Your task to perform on an android device: make emails show in primary in the gmail app Image 0: 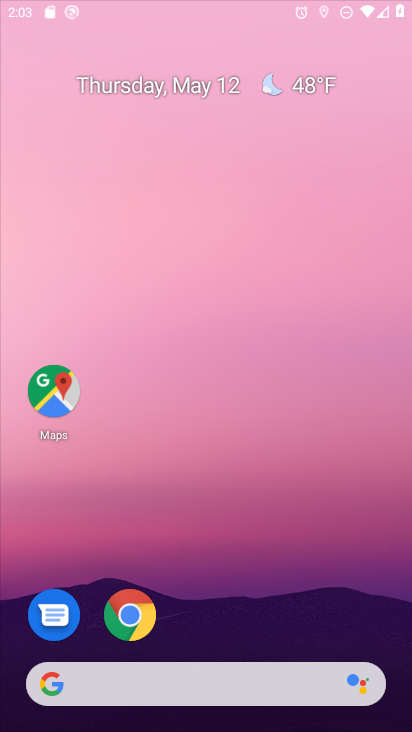
Step 0: drag from (277, 636) to (351, 59)
Your task to perform on an android device: make emails show in primary in the gmail app Image 1: 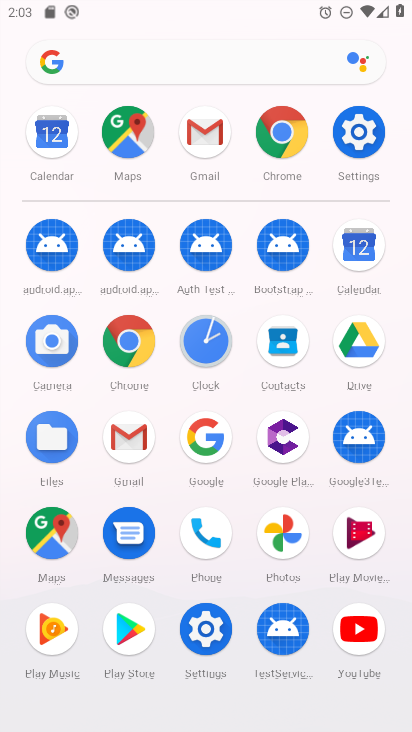
Step 1: click (135, 438)
Your task to perform on an android device: make emails show in primary in the gmail app Image 2: 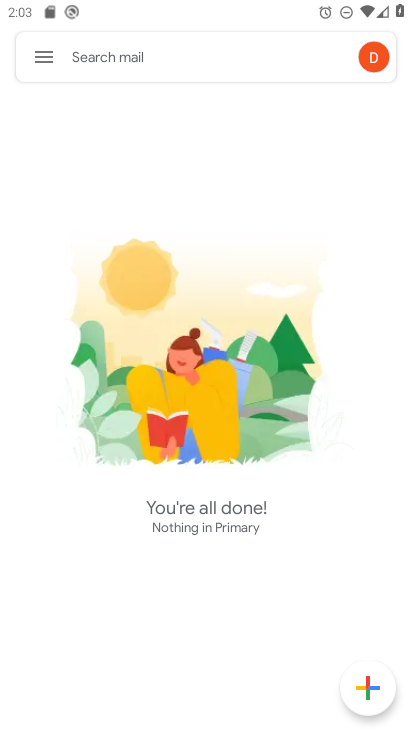
Step 2: click (34, 49)
Your task to perform on an android device: make emails show in primary in the gmail app Image 3: 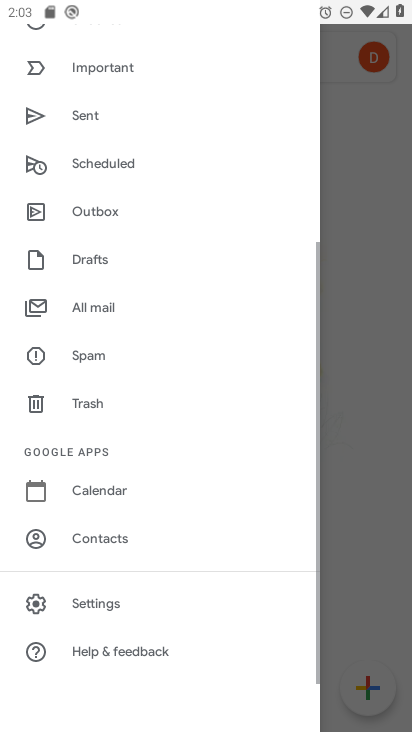
Step 3: drag from (152, 245) to (181, 710)
Your task to perform on an android device: make emails show in primary in the gmail app Image 4: 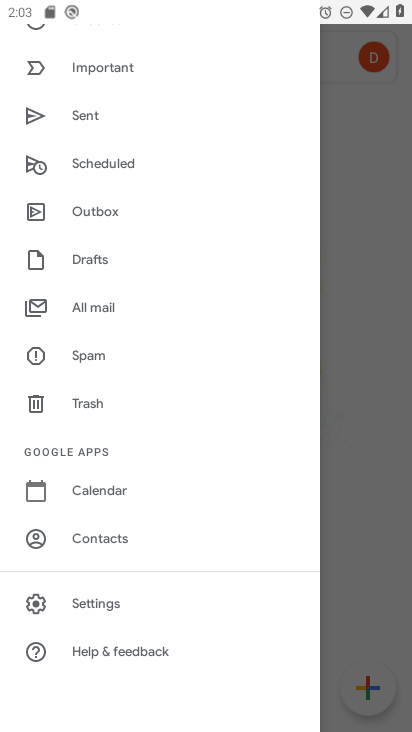
Step 4: drag from (137, 136) to (222, 725)
Your task to perform on an android device: make emails show in primary in the gmail app Image 5: 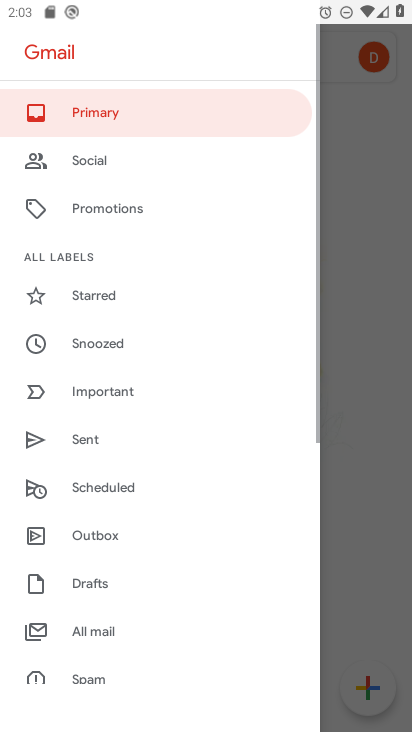
Step 5: click (121, 110)
Your task to perform on an android device: make emails show in primary in the gmail app Image 6: 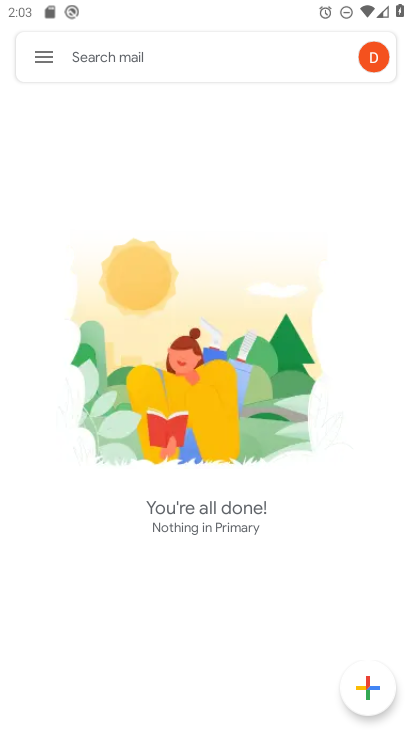
Step 6: task complete